Your task to perform on an android device: Go to internet settings Image 0: 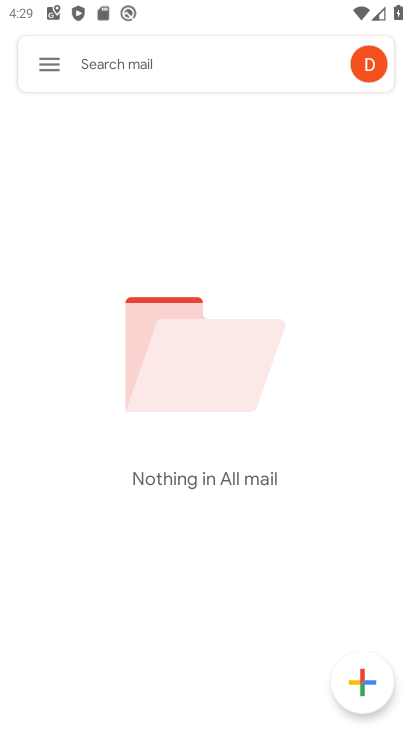
Step 0: press home button
Your task to perform on an android device: Go to internet settings Image 1: 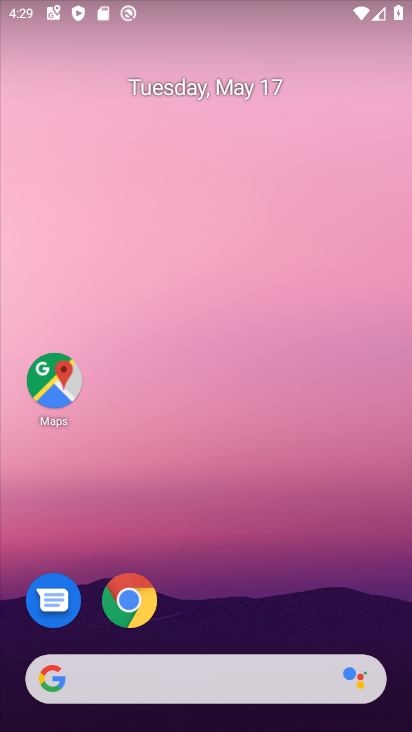
Step 1: drag from (212, 626) to (263, 64)
Your task to perform on an android device: Go to internet settings Image 2: 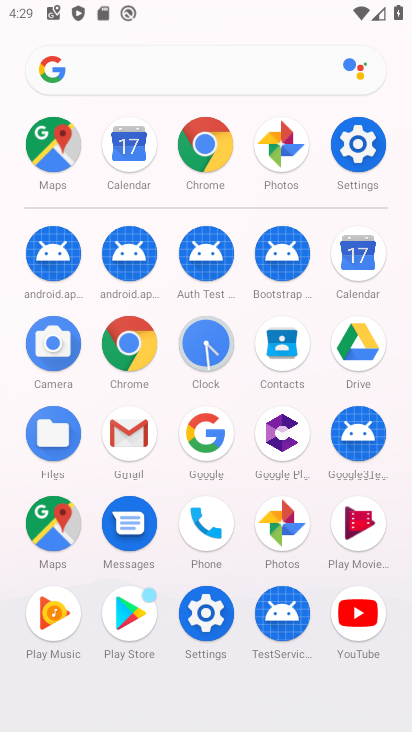
Step 2: click (362, 142)
Your task to perform on an android device: Go to internet settings Image 3: 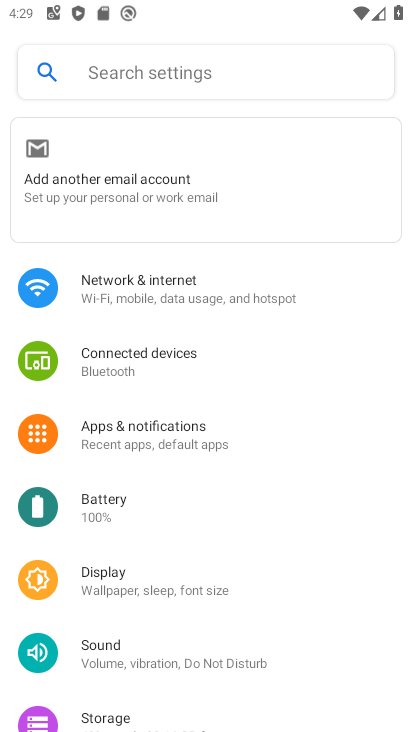
Step 3: click (159, 289)
Your task to perform on an android device: Go to internet settings Image 4: 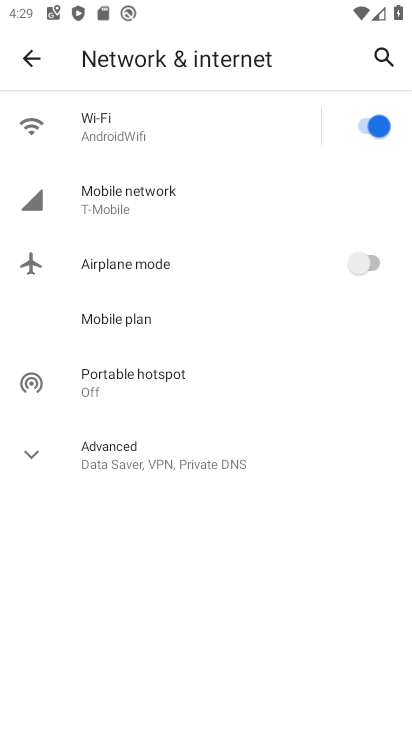
Step 4: task complete